Your task to perform on an android device: Open the map Image 0: 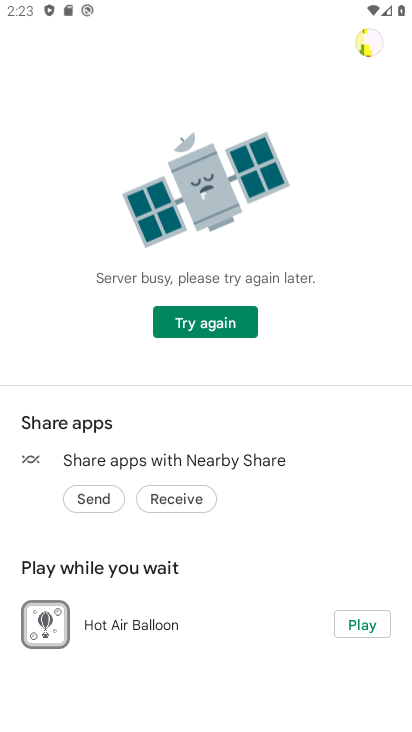
Step 0: press home button
Your task to perform on an android device: Open the map Image 1: 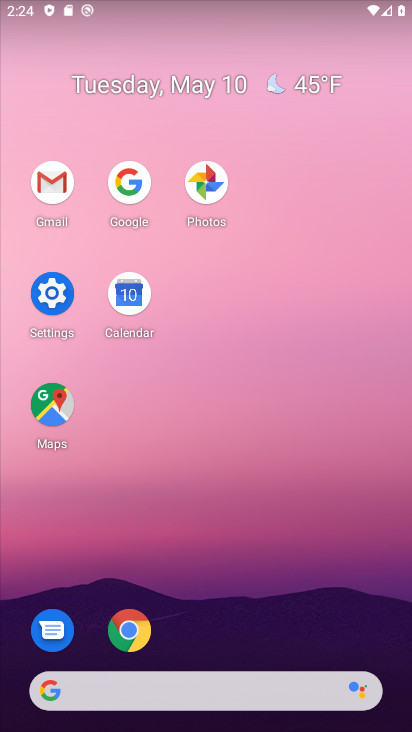
Step 1: click (61, 409)
Your task to perform on an android device: Open the map Image 2: 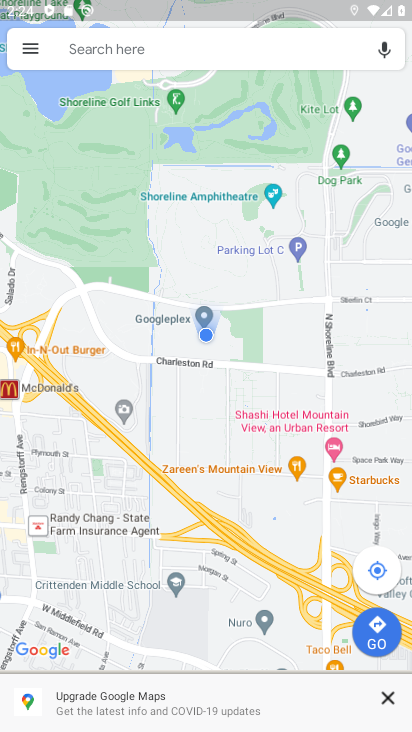
Step 2: task complete